Your task to perform on an android device: set the timer Image 0: 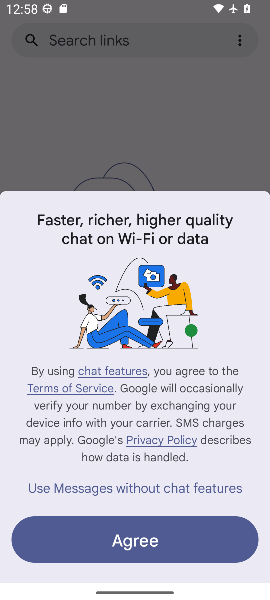
Step 0: press home button
Your task to perform on an android device: set the timer Image 1: 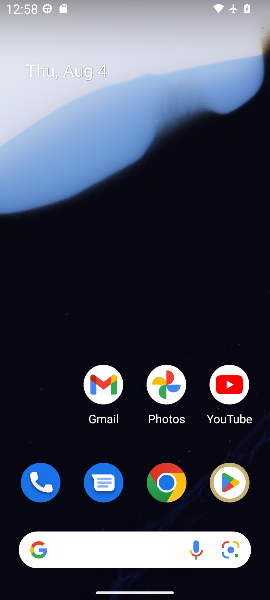
Step 1: drag from (130, 440) to (133, 168)
Your task to perform on an android device: set the timer Image 2: 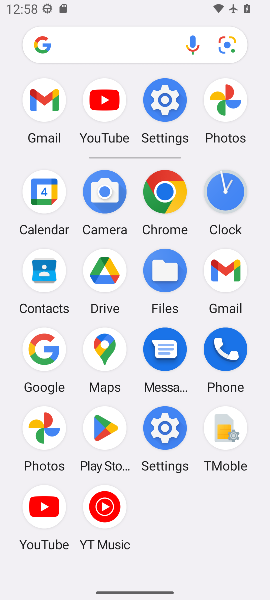
Step 2: click (207, 200)
Your task to perform on an android device: set the timer Image 3: 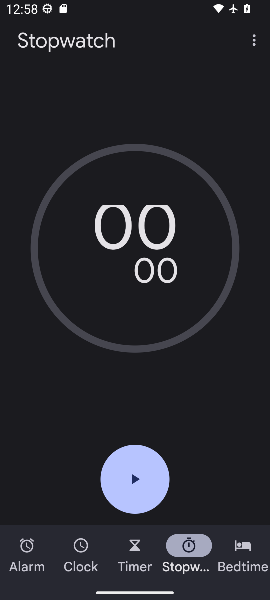
Step 3: click (139, 563)
Your task to perform on an android device: set the timer Image 4: 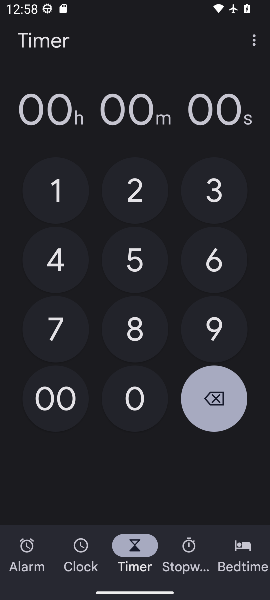
Step 4: click (223, 104)
Your task to perform on an android device: set the timer Image 5: 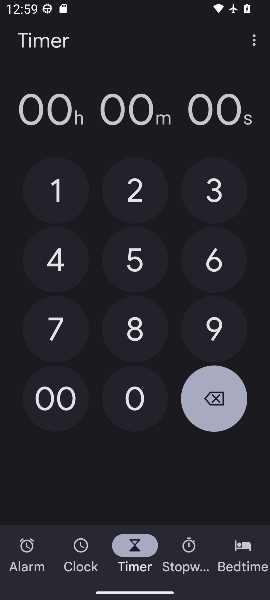
Step 5: type "11"
Your task to perform on an android device: set the timer Image 6: 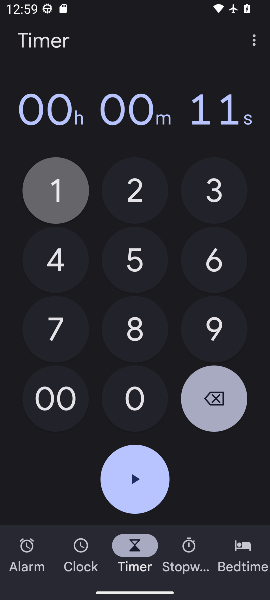
Step 6: task complete